Your task to perform on an android device: Open notification settings Image 0: 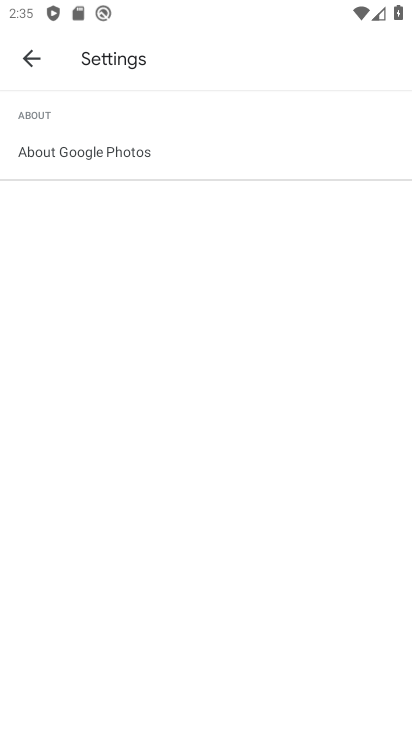
Step 0: press home button
Your task to perform on an android device: Open notification settings Image 1: 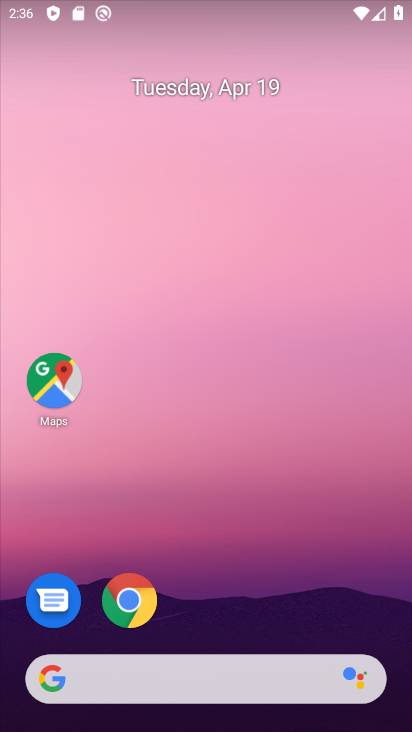
Step 1: drag from (331, 606) to (281, 97)
Your task to perform on an android device: Open notification settings Image 2: 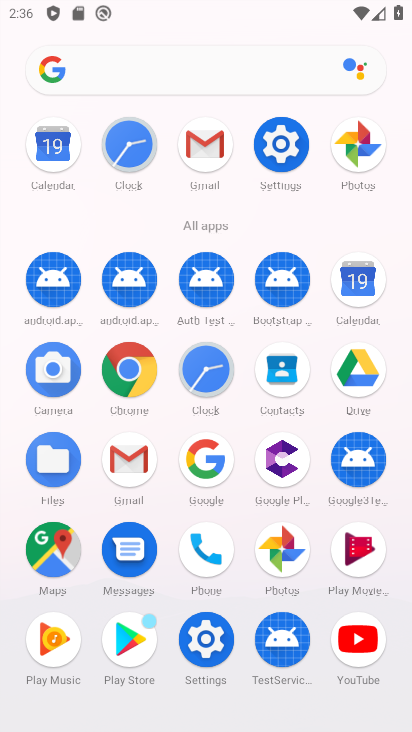
Step 2: click (203, 636)
Your task to perform on an android device: Open notification settings Image 3: 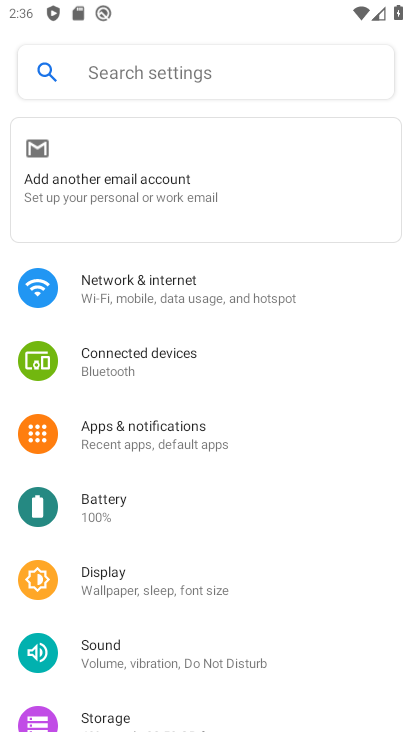
Step 3: click (157, 411)
Your task to perform on an android device: Open notification settings Image 4: 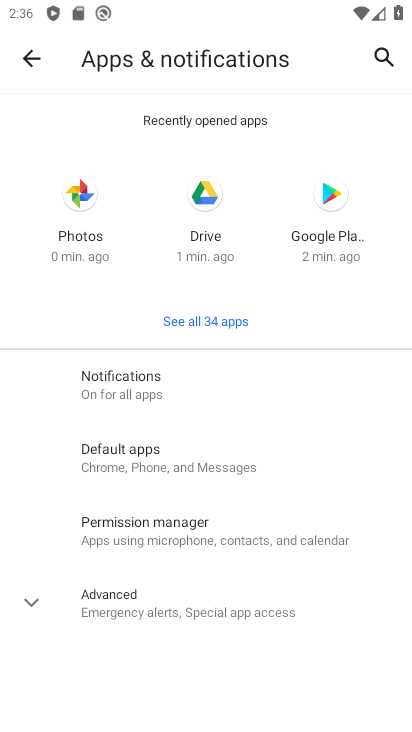
Step 4: click (112, 393)
Your task to perform on an android device: Open notification settings Image 5: 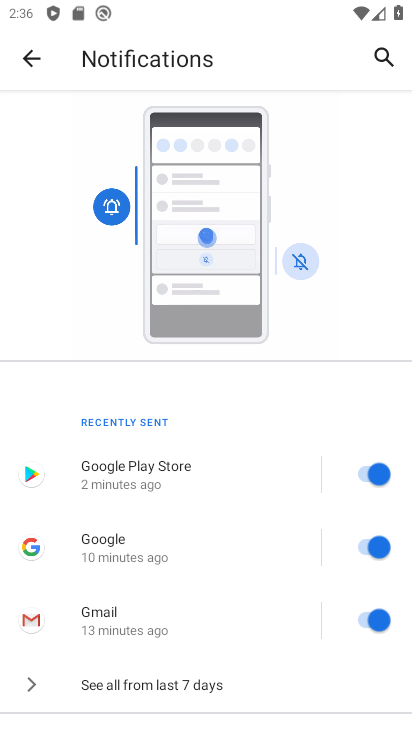
Step 5: drag from (318, 647) to (275, 218)
Your task to perform on an android device: Open notification settings Image 6: 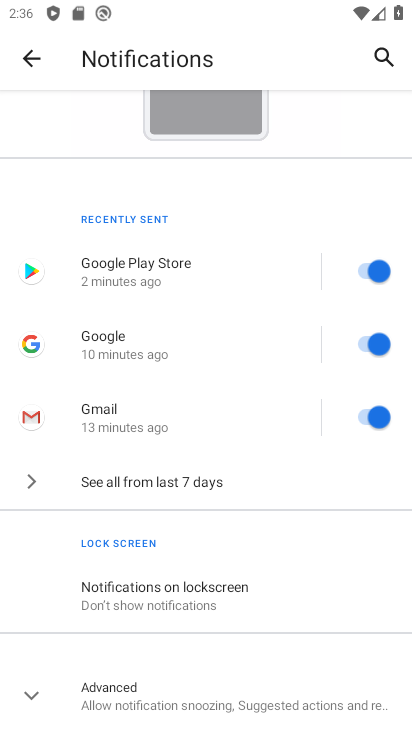
Step 6: click (40, 694)
Your task to perform on an android device: Open notification settings Image 7: 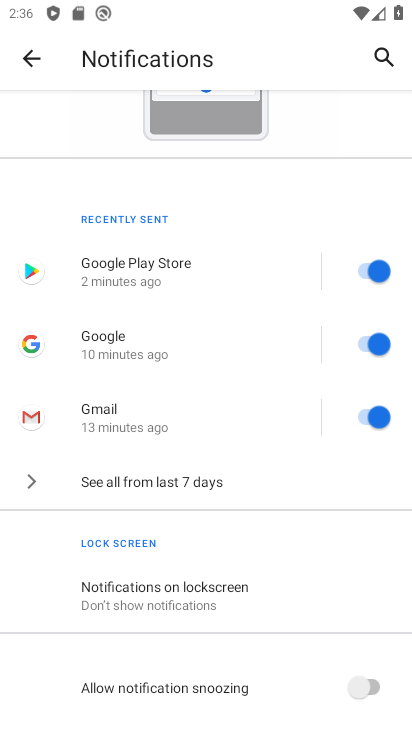
Step 7: task complete